Your task to perform on an android device: Open the calendar and show me this week's events Image 0: 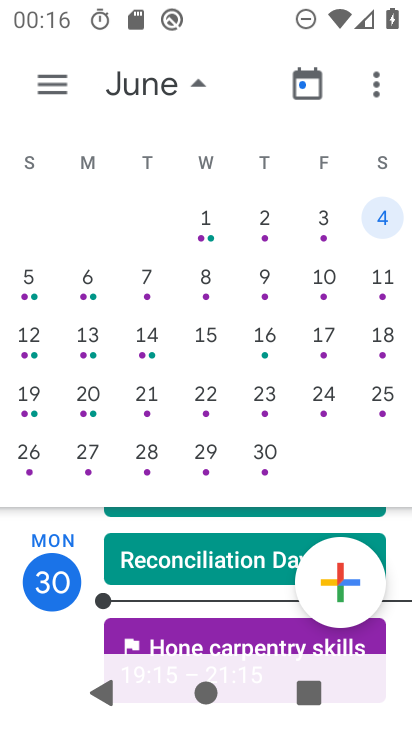
Step 0: press home button
Your task to perform on an android device: Open the calendar and show me this week's events Image 1: 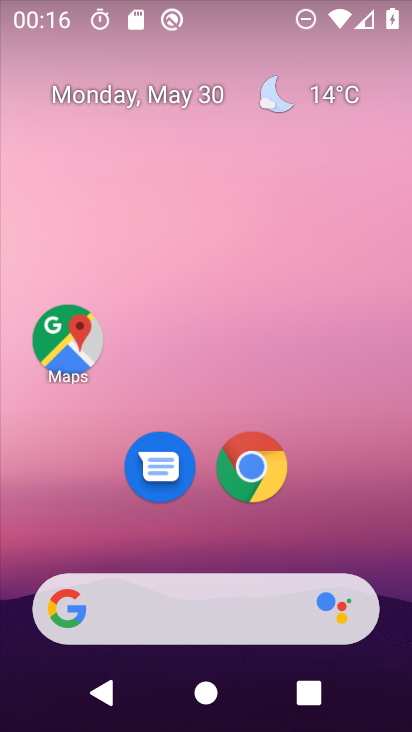
Step 1: drag from (209, 543) to (196, 170)
Your task to perform on an android device: Open the calendar and show me this week's events Image 2: 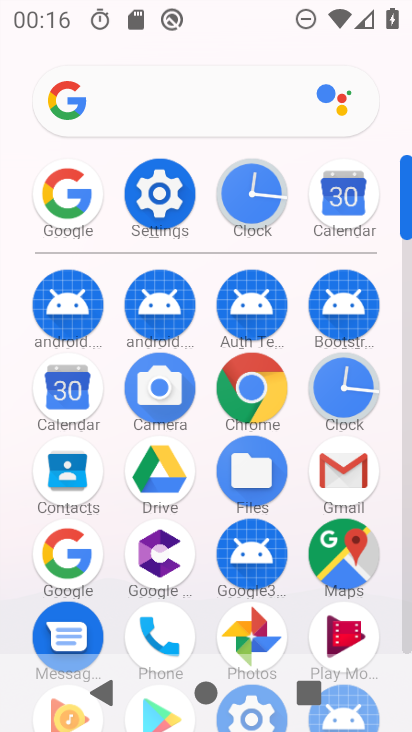
Step 2: click (324, 189)
Your task to perform on an android device: Open the calendar and show me this week's events Image 3: 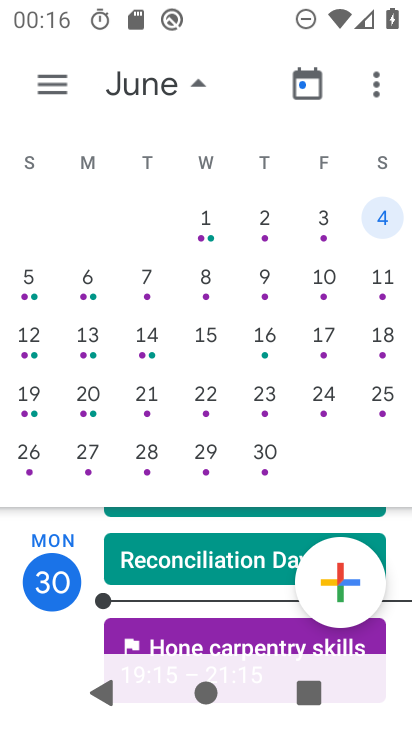
Step 3: drag from (55, 314) to (348, 317)
Your task to perform on an android device: Open the calendar and show me this week's events Image 4: 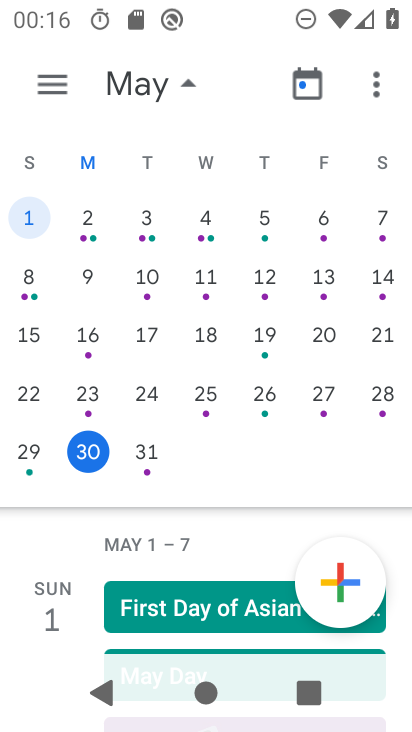
Step 4: drag from (353, 331) to (32, 321)
Your task to perform on an android device: Open the calendar and show me this week's events Image 5: 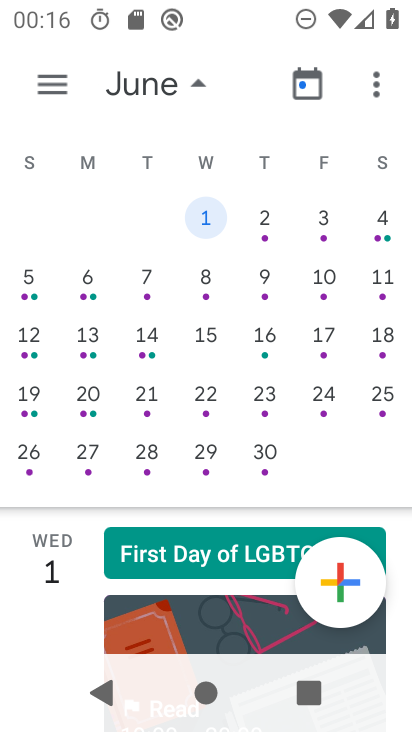
Step 5: click (214, 218)
Your task to perform on an android device: Open the calendar and show me this week's events Image 6: 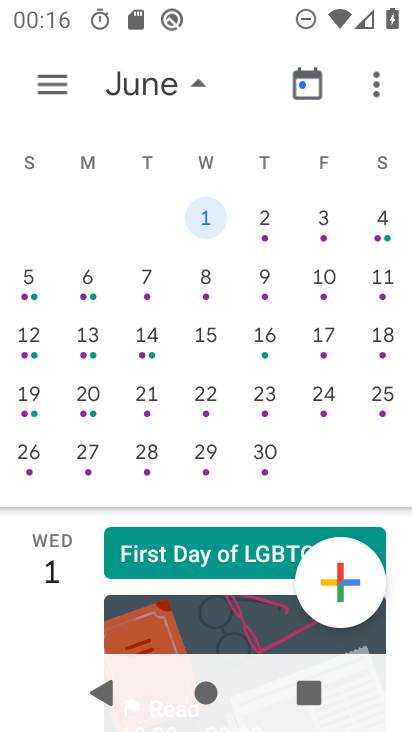
Step 6: drag from (219, 503) to (262, 252)
Your task to perform on an android device: Open the calendar and show me this week's events Image 7: 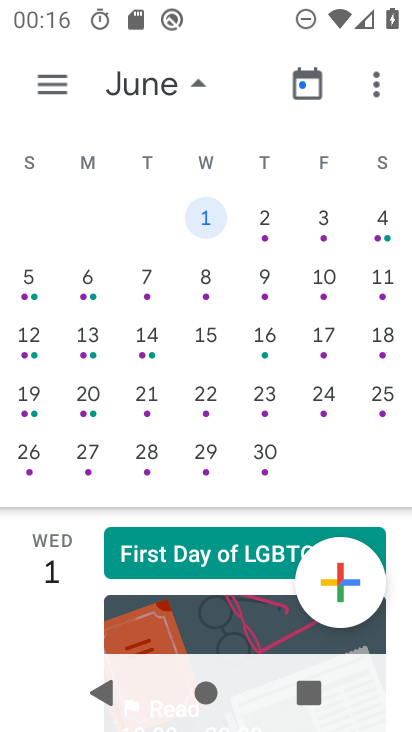
Step 7: click (265, 215)
Your task to perform on an android device: Open the calendar and show me this week's events Image 8: 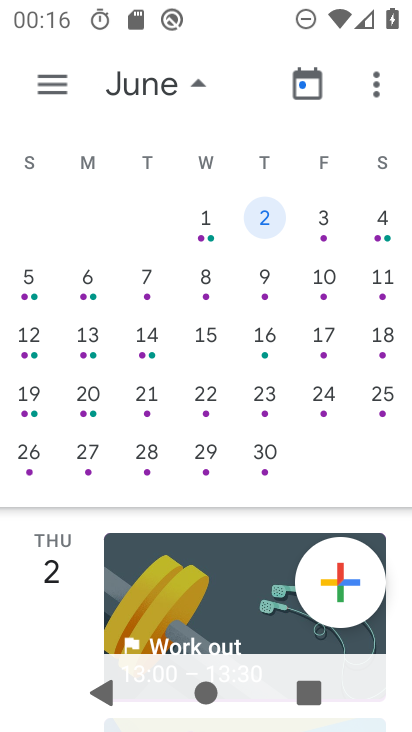
Step 8: task complete